Your task to perform on an android device: Go to notification settings Image 0: 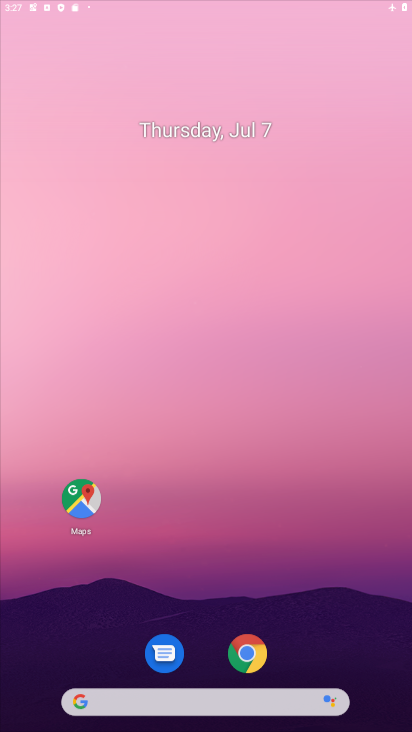
Step 0: click (248, 650)
Your task to perform on an android device: Go to notification settings Image 1: 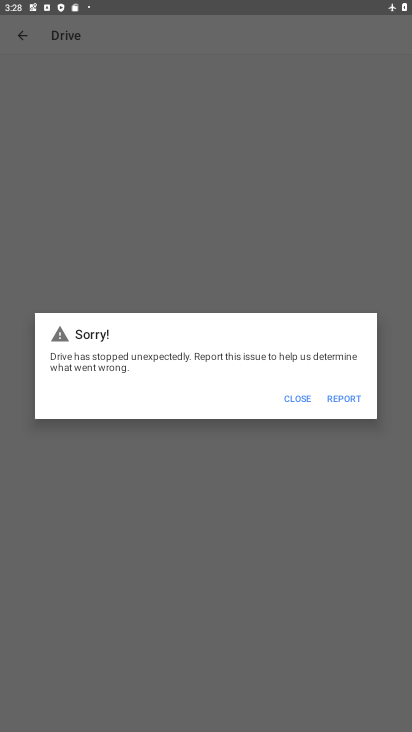
Step 1: press home button
Your task to perform on an android device: Go to notification settings Image 2: 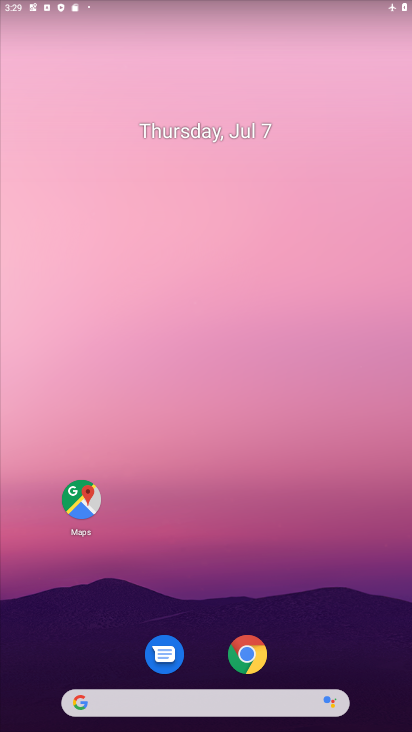
Step 2: drag from (294, 396) to (273, 74)
Your task to perform on an android device: Go to notification settings Image 3: 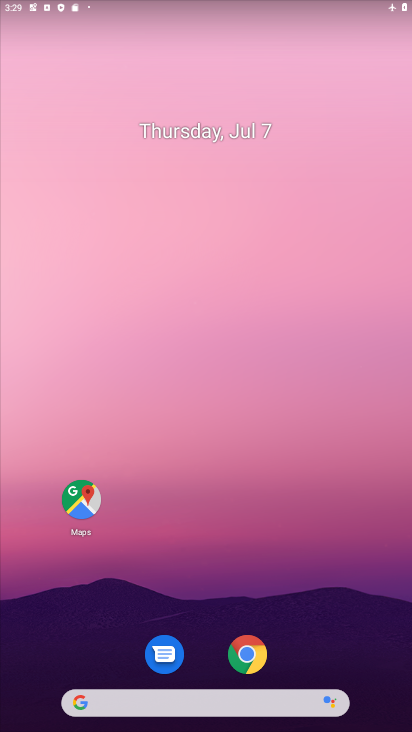
Step 3: drag from (333, 637) to (299, 112)
Your task to perform on an android device: Go to notification settings Image 4: 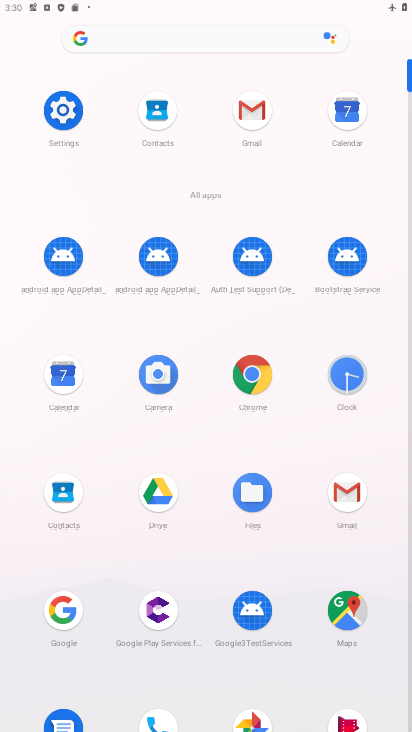
Step 4: drag from (300, 528) to (306, 142)
Your task to perform on an android device: Go to notification settings Image 5: 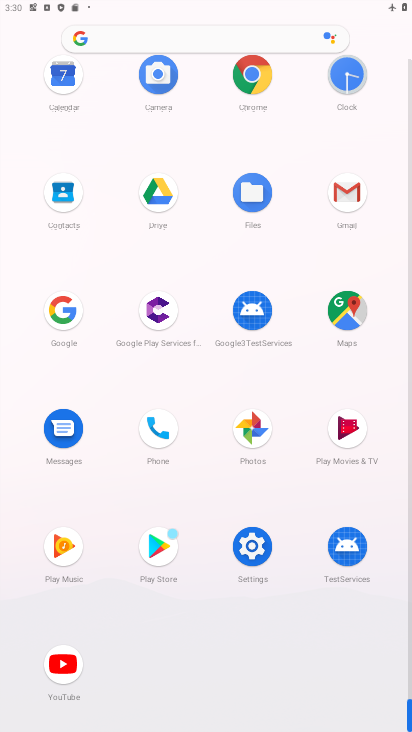
Step 5: click (249, 559)
Your task to perform on an android device: Go to notification settings Image 6: 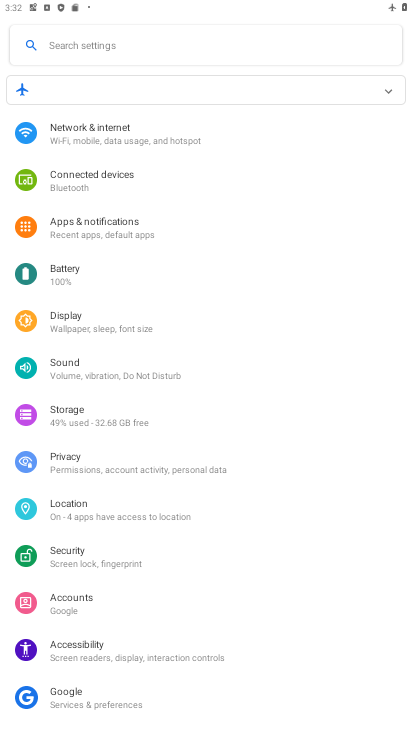
Step 6: click (233, 238)
Your task to perform on an android device: Go to notification settings Image 7: 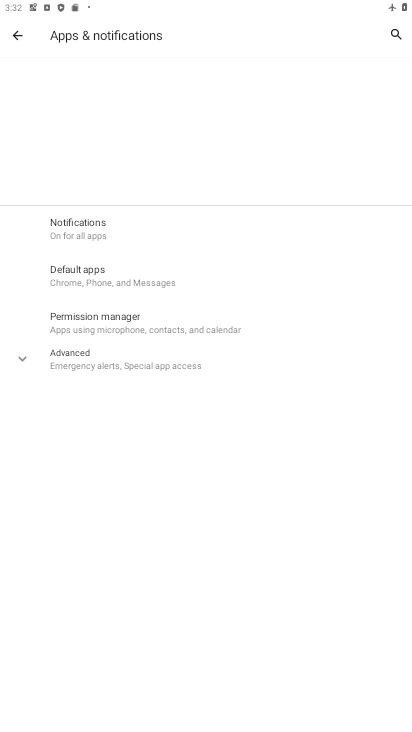
Step 7: task complete